Your task to perform on an android device: open sync settings in chrome Image 0: 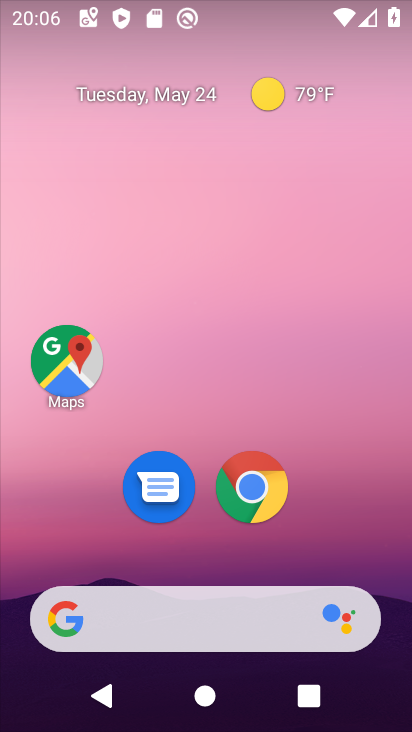
Step 0: click (248, 485)
Your task to perform on an android device: open sync settings in chrome Image 1: 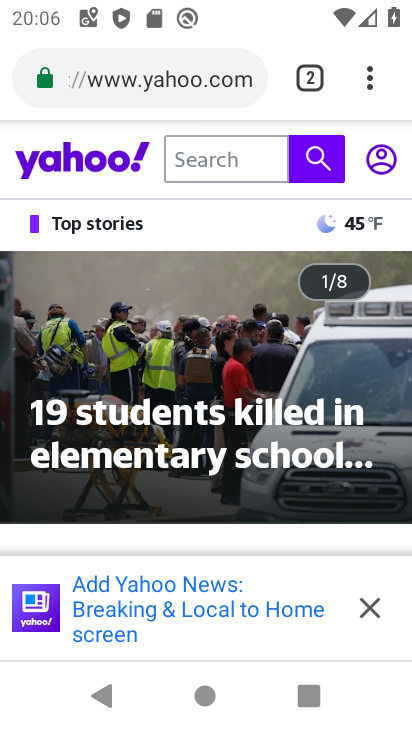
Step 1: click (365, 76)
Your task to perform on an android device: open sync settings in chrome Image 2: 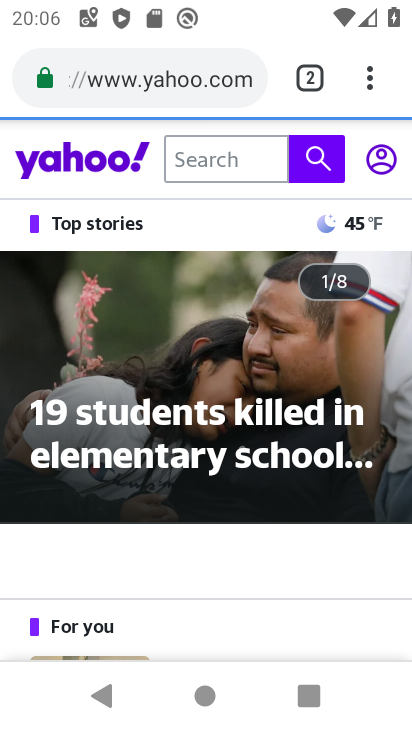
Step 2: click (364, 79)
Your task to perform on an android device: open sync settings in chrome Image 3: 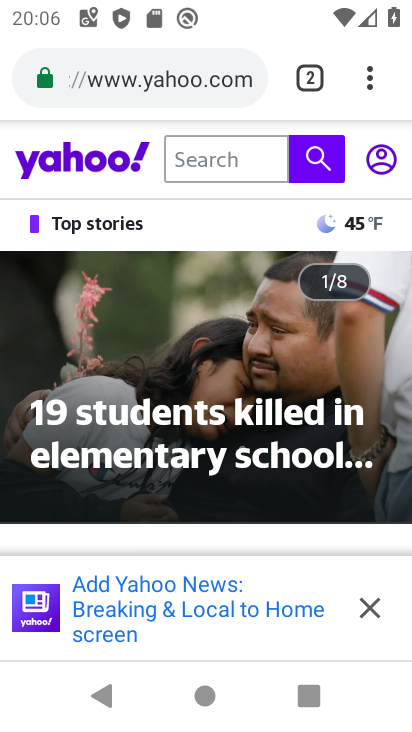
Step 3: click (378, 88)
Your task to perform on an android device: open sync settings in chrome Image 4: 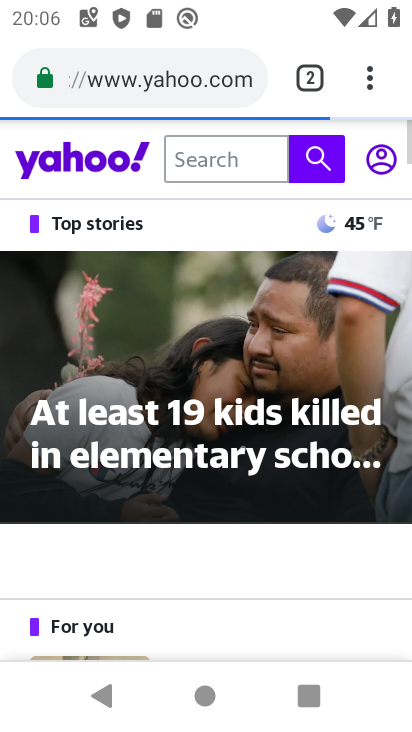
Step 4: click (372, 62)
Your task to perform on an android device: open sync settings in chrome Image 5: 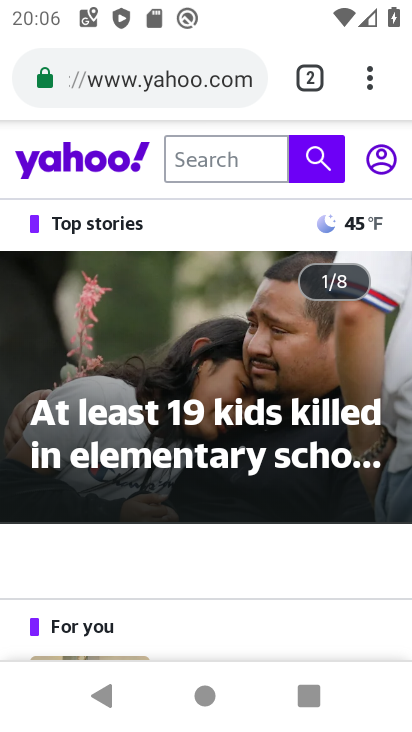
Step 5: click (312, 87)
Your task to perform on an android device: open sync settings in chrome Image 6: 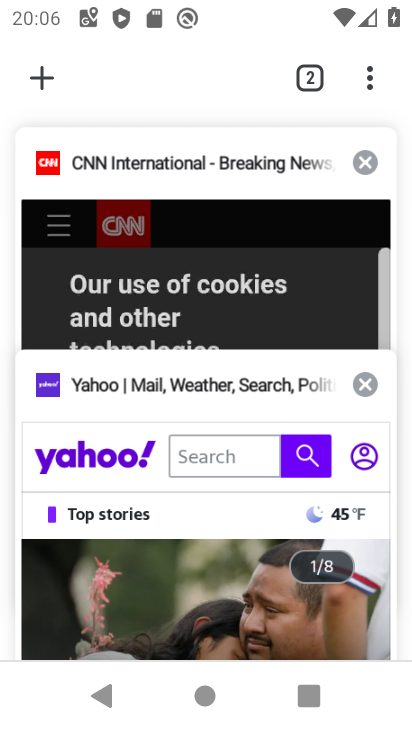
Step 6: click (365, 161)
Your task to perform on an android device: open sync settings in chrome Image 7: 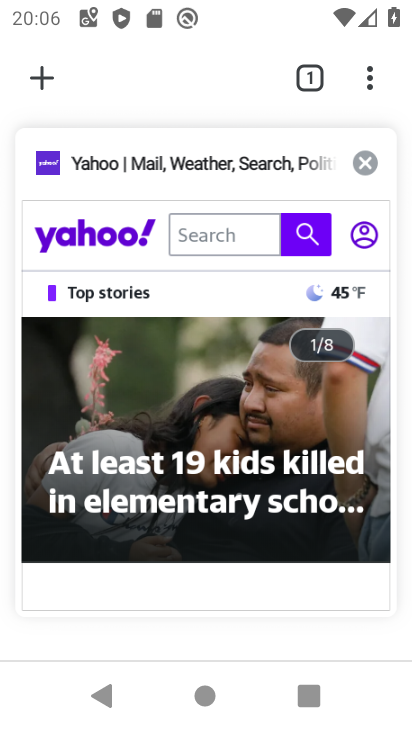
Step 7: click (365, 161)
Your task to perform on an android device: open sync settings in chrome Image 8: 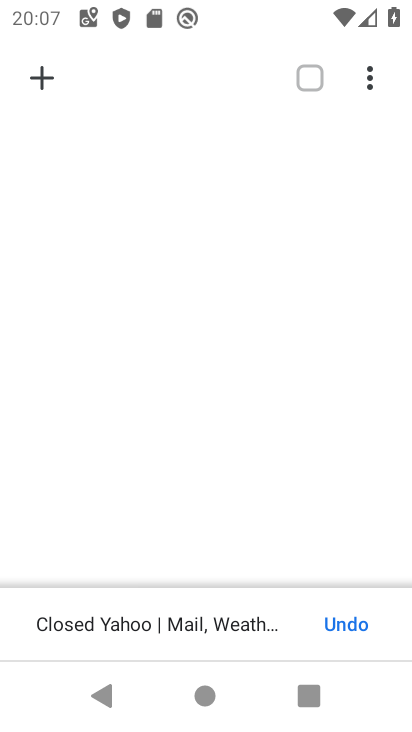
Step 8: click (37, 77)
Your task to perform on an android device: open sync settings in chrome Image 9: 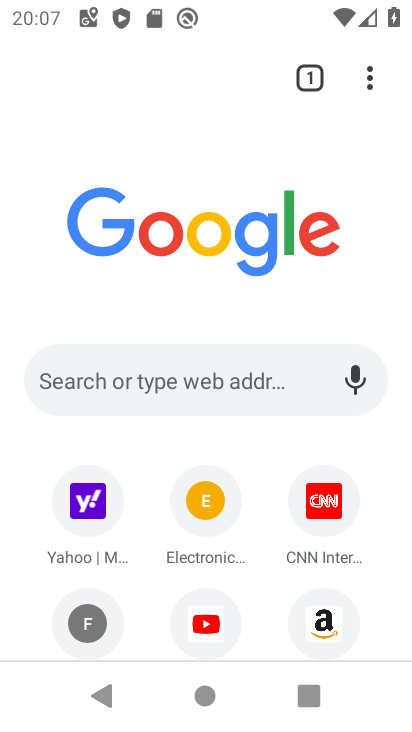
Step 9: click (370, 78)
Your task to perform on an android device: open sync settings in chrome Image 10: 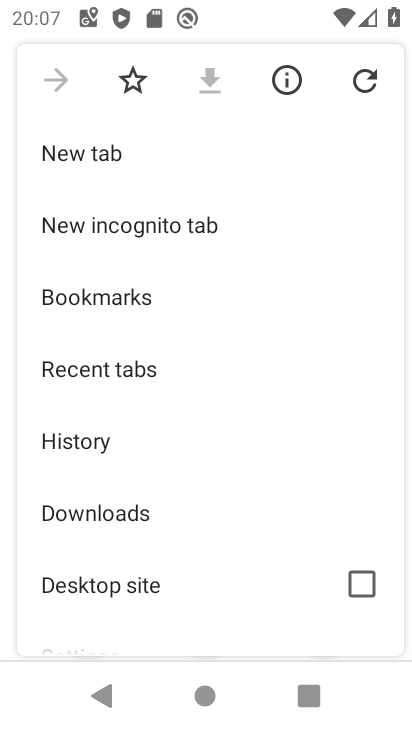
Step 10: drag from (83, 611) to (208, 124)
Your task to perform on an android device: open sync settings in chrome Image 11: 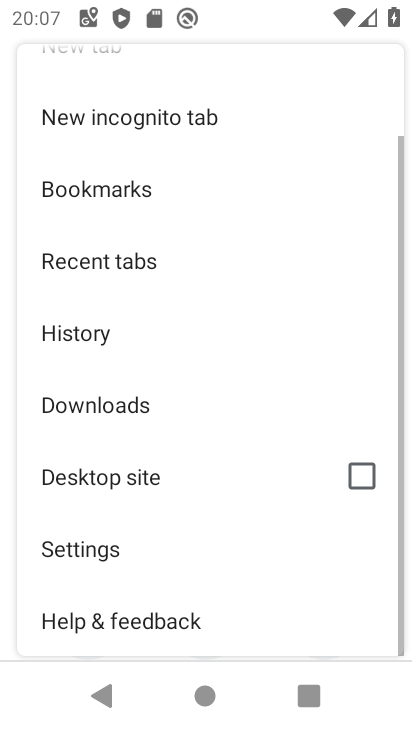
Step 11: click (65, 558)
Your task to perform on an android device: open sync settings in chrome Image 12: 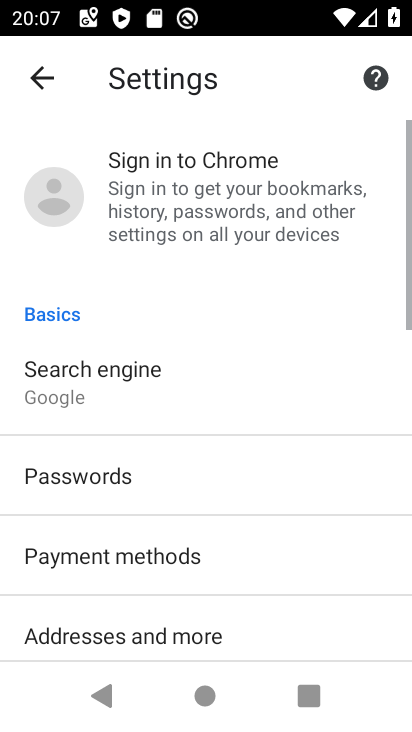
Step 12: drag from (13, 623) to (207, 139)
Your task to perform on an android device: open sync settings in chrome Image 13: 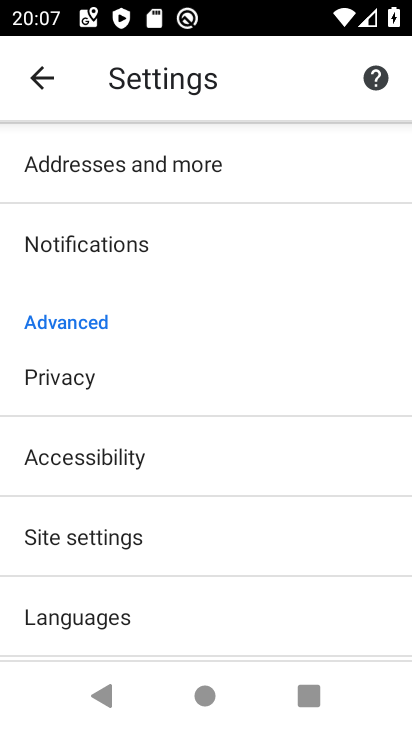
Step 13: click (60, 549)
Your task to perform on an android device: open sync settings in chrome Image 14: 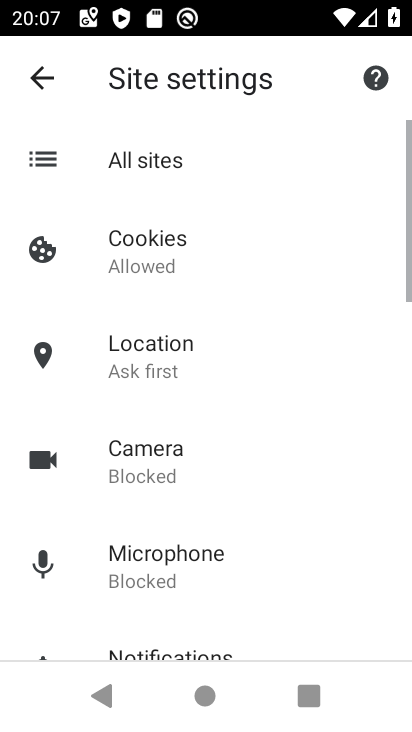
Step 14: drag from (9, 608) to (161, 187)
Your task to perform on an android device: open sync settings in chrome Image 15: 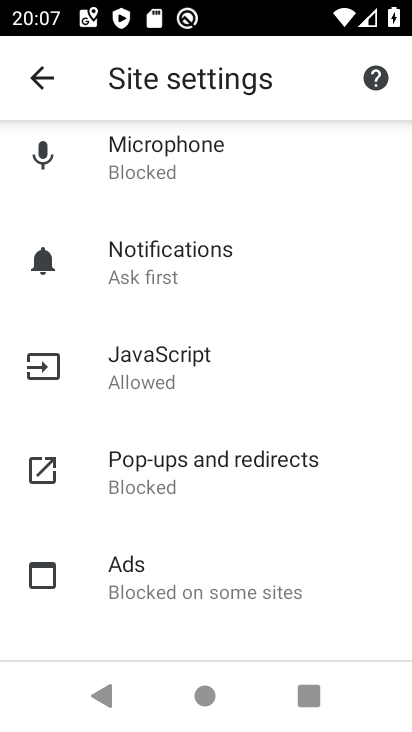
Step 15: drag from (63, 652) to (196, 279)
Your task to perform on an android device: open sync settings in chrome Image 16: 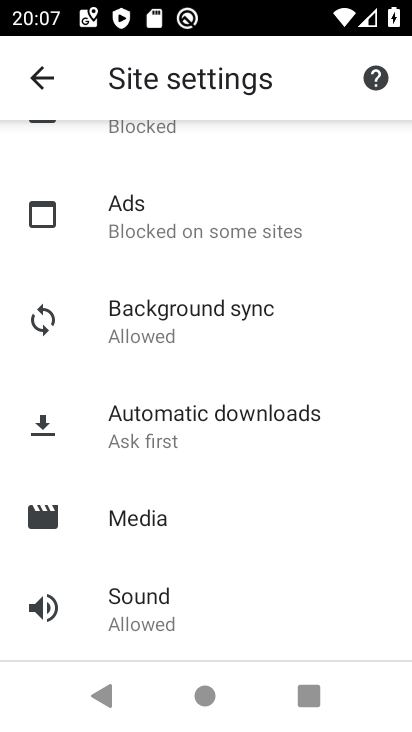
Step 16: click (177, 318)
Your task to perform on an android device: open sync settings in chrome Image 17: 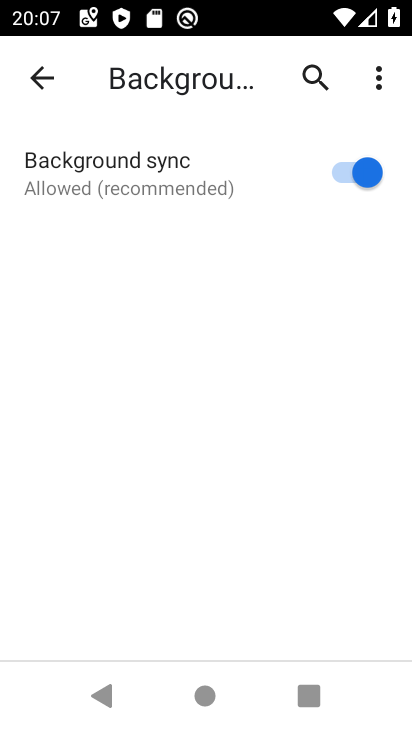
Step 17: task complete